Your task to perform on an android device: Go to eBay Image 0: 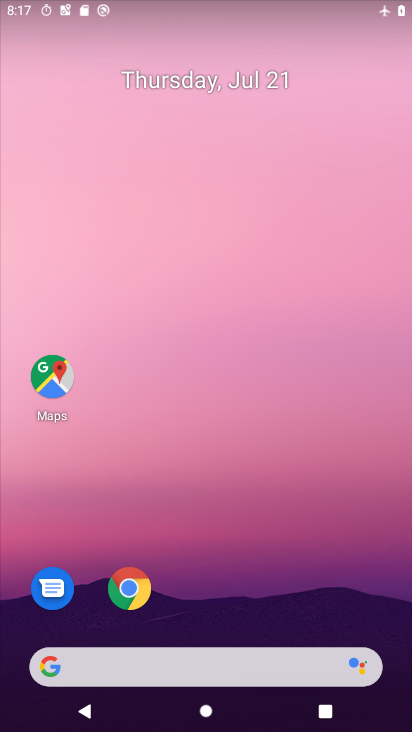
Step 0: drag from (249, 713) to (247, 306)
Your task to perform on an android device: Go to eBay Image 1: 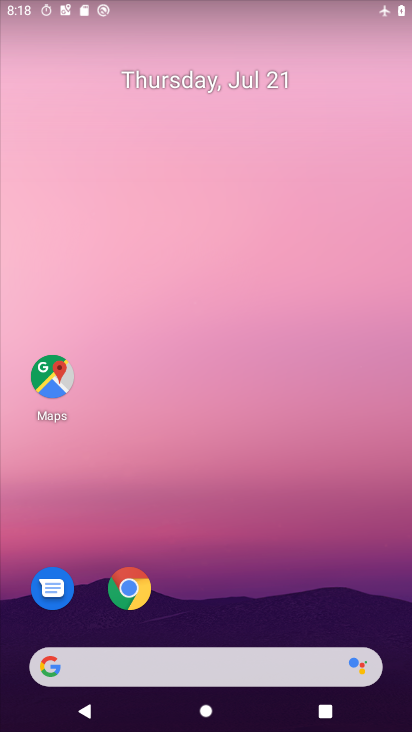
Step 1: drag from (231, 637) to (138, 220)
Your task to perform on an android device: Go to eBay Image 2: 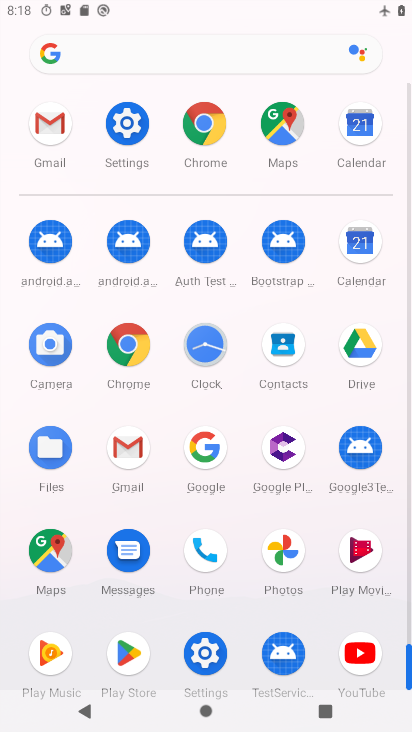
Step 2: click (127, 136)
Your task to perform on an android device: Go to eBay Image 3: 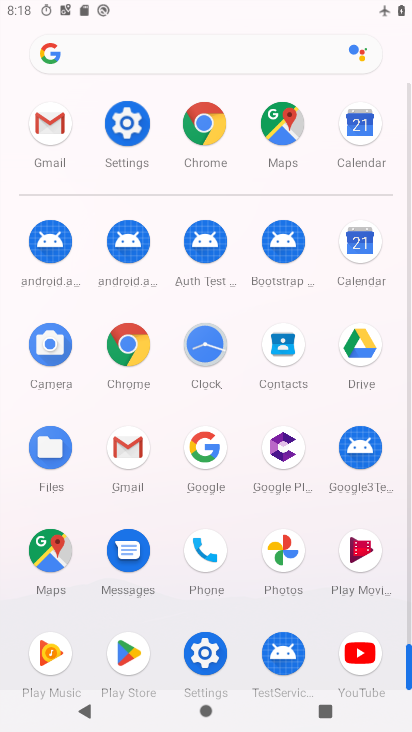
Step 3: click (127, 136)
Your task to perform on an android device: Go to eBay Image 4: 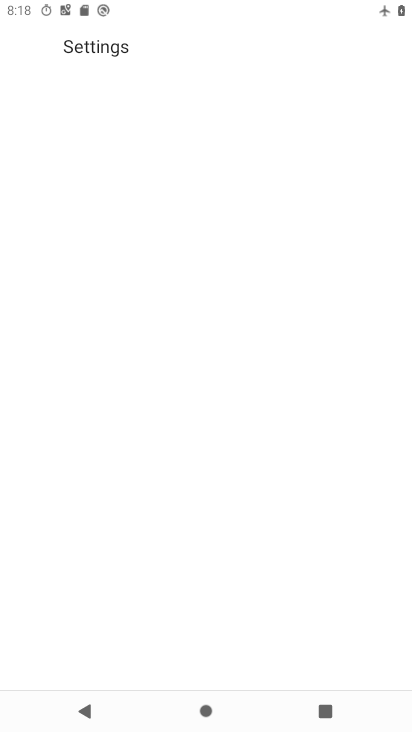
Step 4: click (127, 136)
Your task to perform on an android device: Go to eBay Image 5: 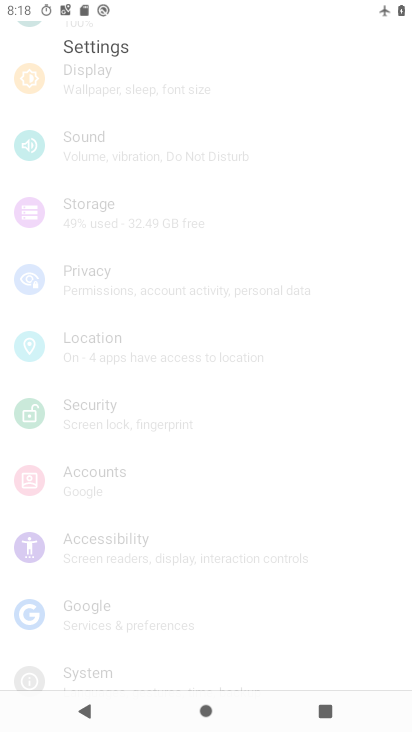
Step 5: click (127, 136)
Your task to perform on an android device: Go to eBay Image 6: 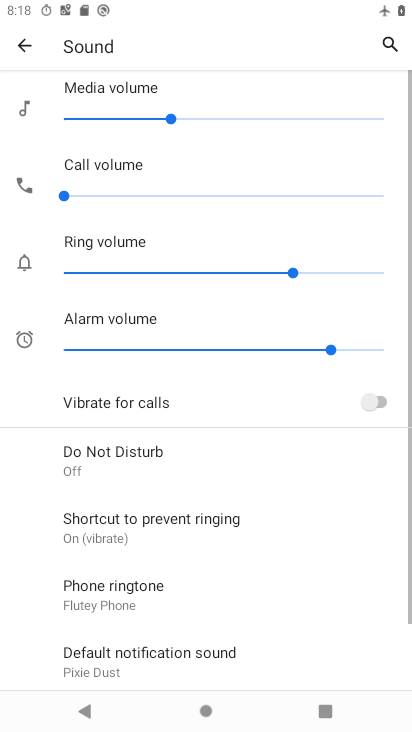
Step 6: press back button
Your task to perform on an android device: Go to eBay Image 7: 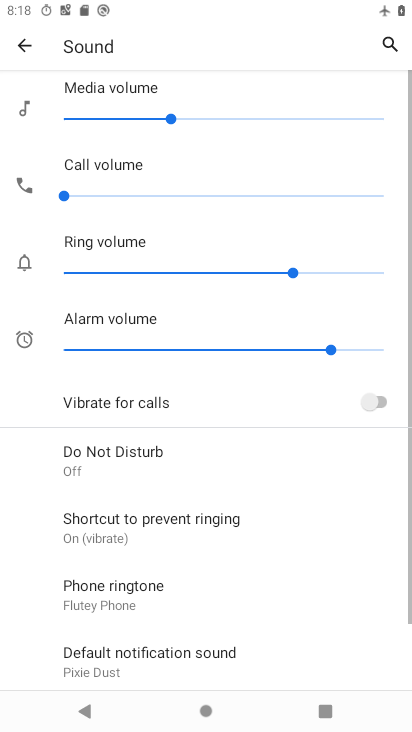
Step 7: press back button
Your task to perform on an android device: Go to eBay Image 8: 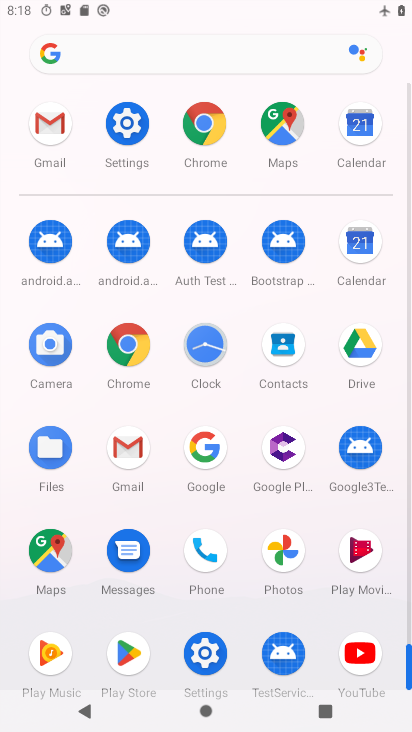
Step 8: click (206, 123)
Your task to perform on an android device: Go to eBay Image 9: 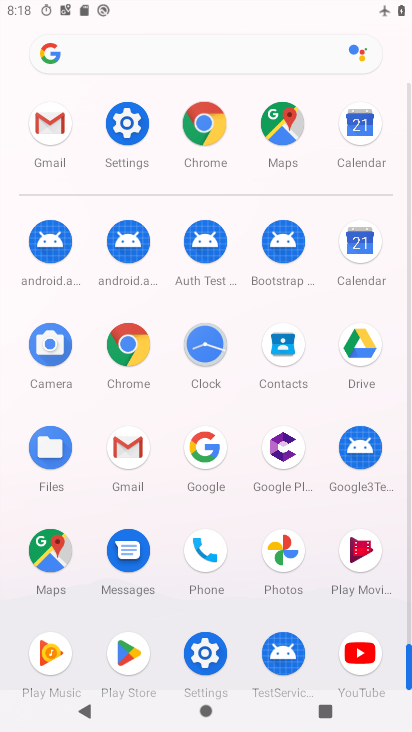
Step 9: click (206, 123)
Your task to perform on an android device: Go to eBay Image 10: 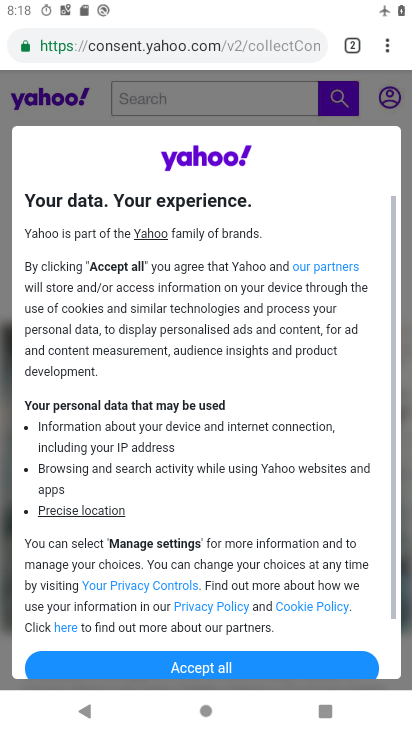
Step 10: drag from (382, 49) to (215, 91)
Your task to perform on an android device: Go to eBay Image 11: 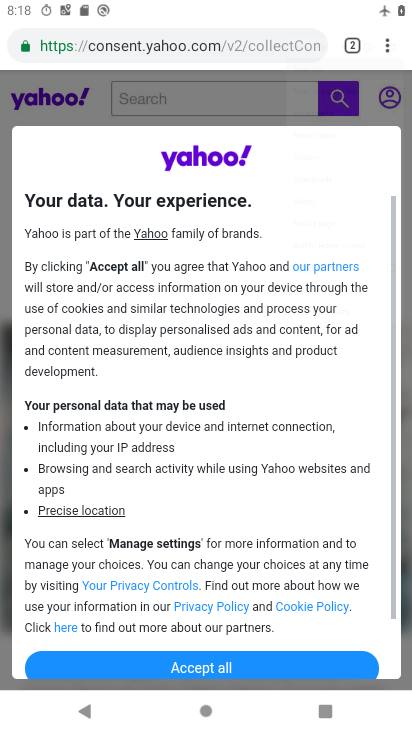
Step 11: click (216, 91)
Your task to perform on an android device: Go to eBay Image 12: 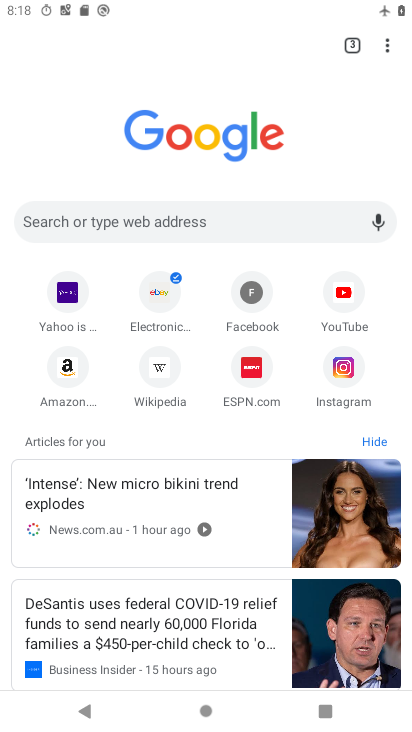
Step 12: click (156, 290)
Your task to perform on an android device: Go to eBay Image 13: 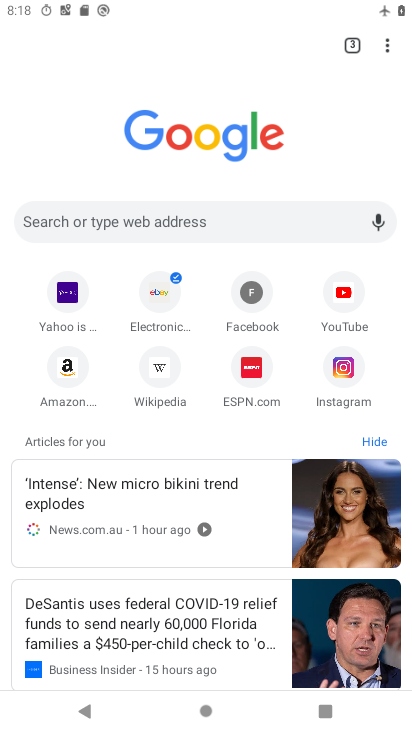
Step 13: click (156, 290)
Your task to perform on an android device: Go to eBay Image 14: 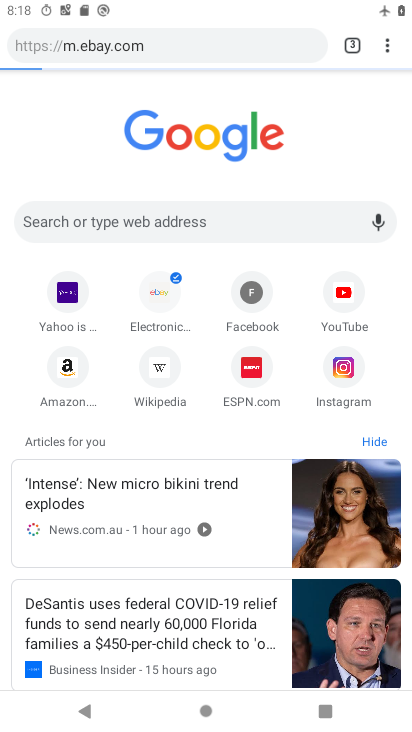
Step 14: click (157, 290)
Your task to perform on an android device: Go to eBay Image 15: 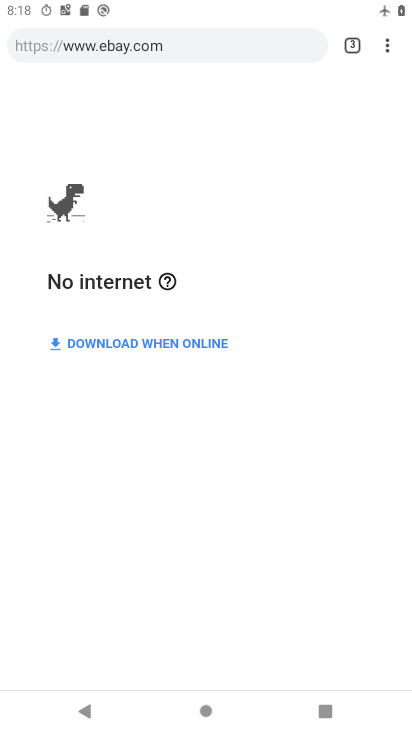
Step 15: click (393, 51)
Your task to perform on an android device: Go to eBay Image 16: 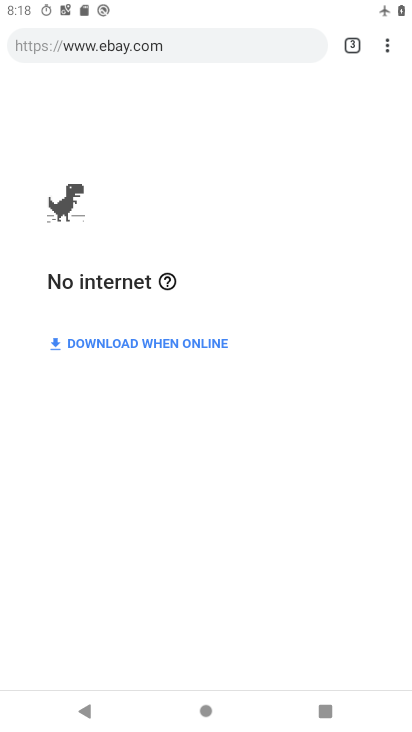
Step 16: task complete